Your task to perform on an android device: turn on wifi Image 0: 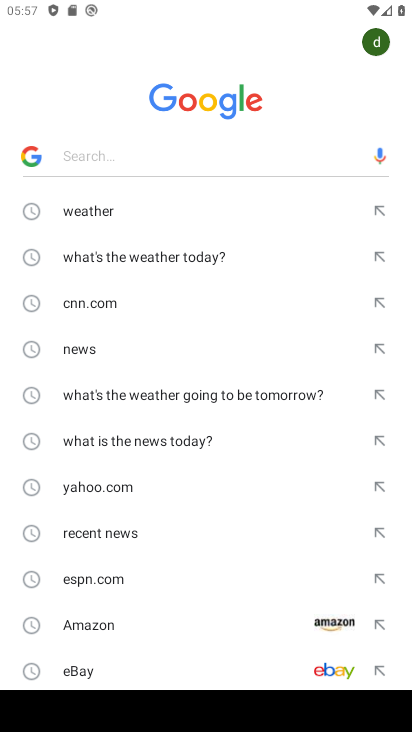
Step 0: drag from (287, 9) to (245, 359)
Your task to perform on an android device: turn on wifi Image 1: 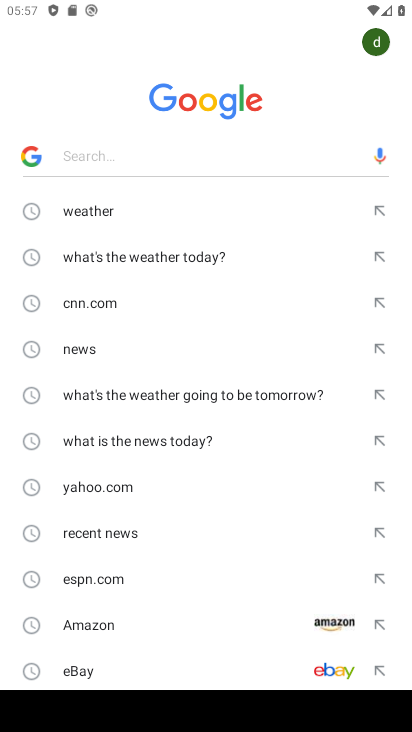
Step 1: task complete